Your task to perform on an android device: Open CNN.com Image 0: 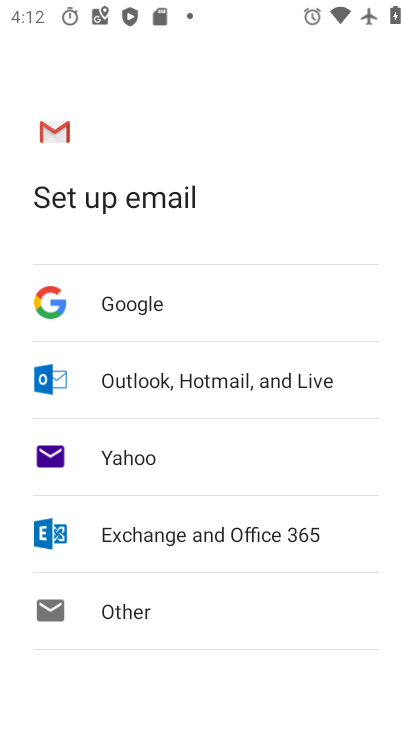
Step 0: press home button
Your task to perform on an android device: Open CNN.com Image 1: 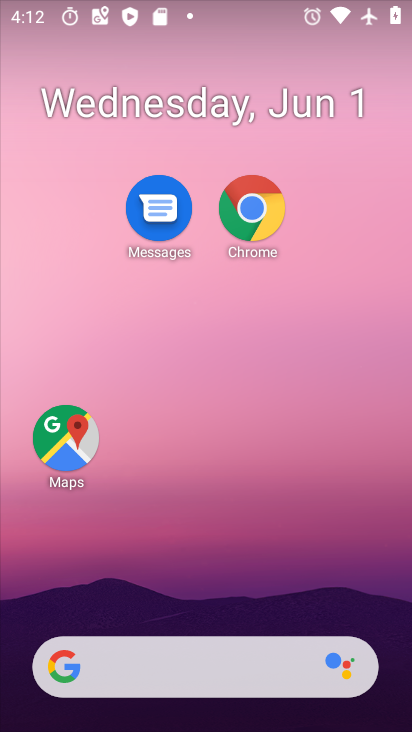
Step 1: click (236, 209)
Your task to perform on an android device: Open CNN.com Image 2: 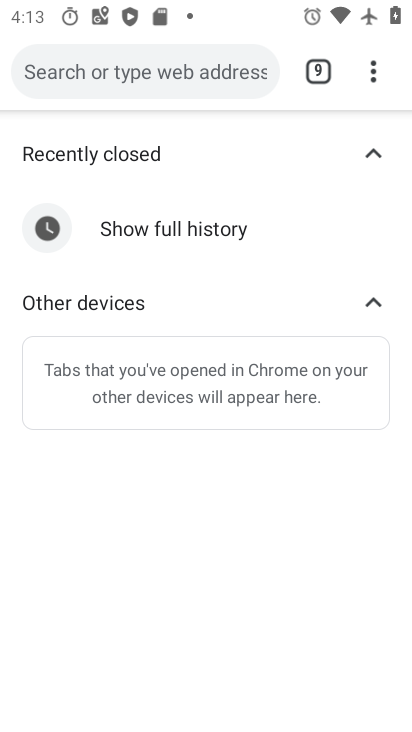
Step 2: click (316, 73)
Your task to perform on an android device: Open CNN.com Image 3: 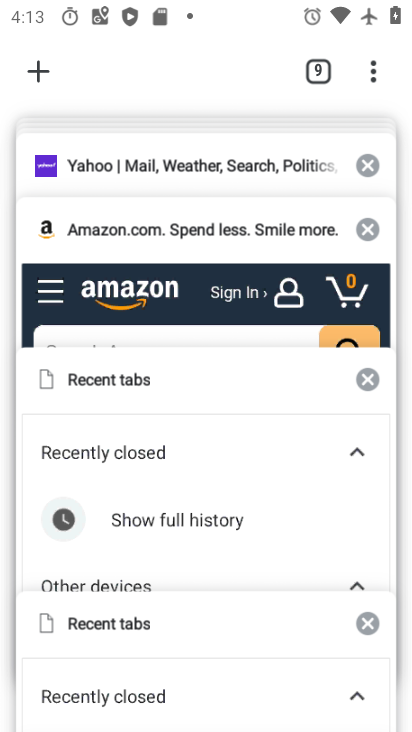
Step 3: drag from (127, 187) to (127, 531)
Your task to perform on an android device: Open CNN.com Image 4: 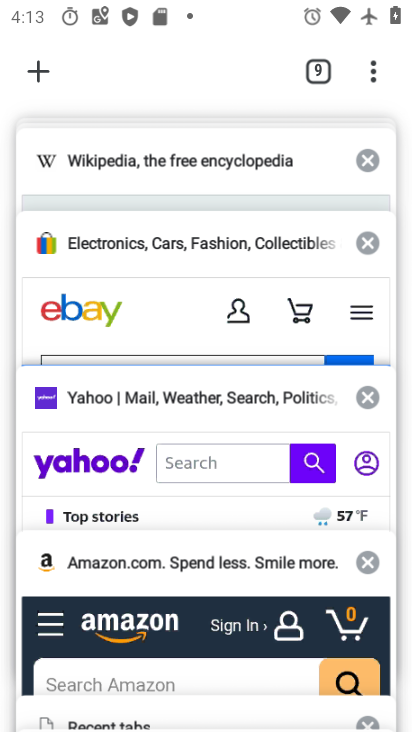
Step 4: drag from (147, 317) to (162, 539)
Your task to perform on an android device: Open CNN.com Image 5: 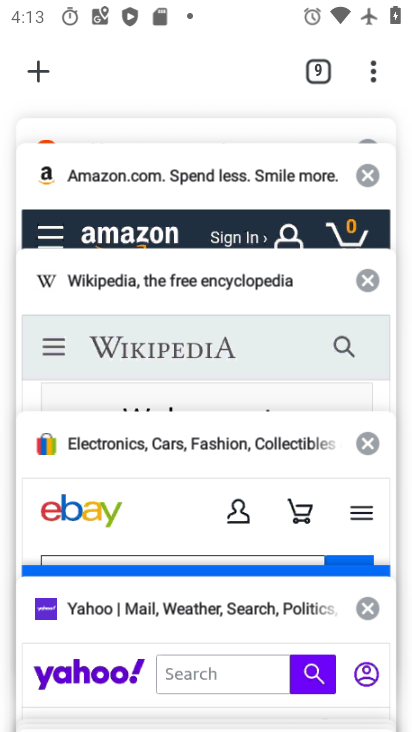
Step 5: drag from (141, 275) to (143, 502)
Your task to perform on an android device: Open CNN.com Image 6: 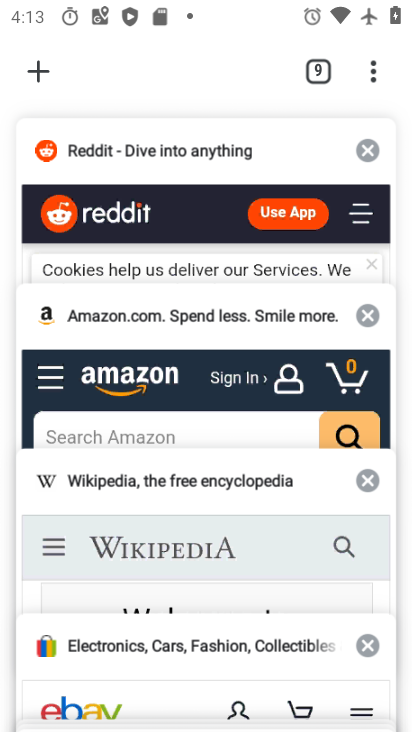
Step 6: drag from (143, 231) to (163, 438)
Your task to perform on an android device: Open CNN.com Image 7: 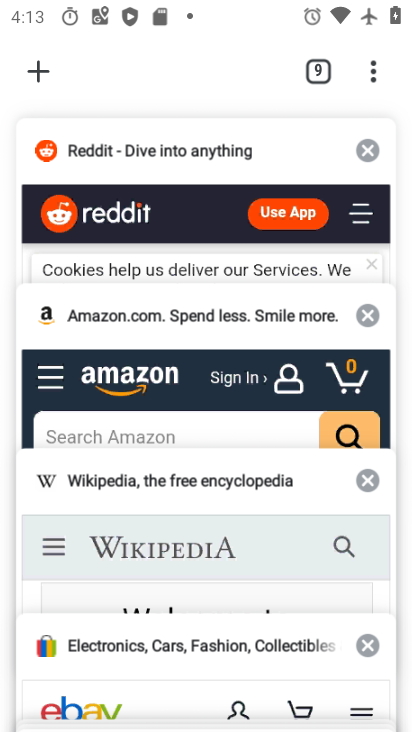
Step 7: drag from (139, 222) to (139, 413)
Your task to perform on an android device: Open CNN.com Image 8: 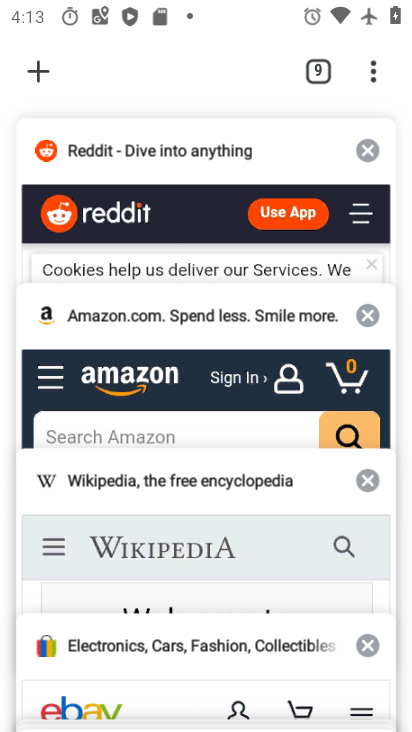
Step 8: drag from (115, 214) to (140, 411)
Your task to perform on an android device: Open CNN.com Image 9: 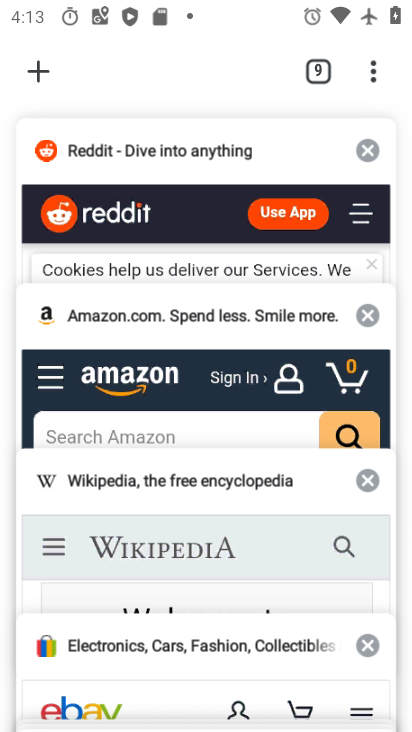
Step 9: click (38, 77)
Your task to perform on an android device: Open CNN.com Image 10: 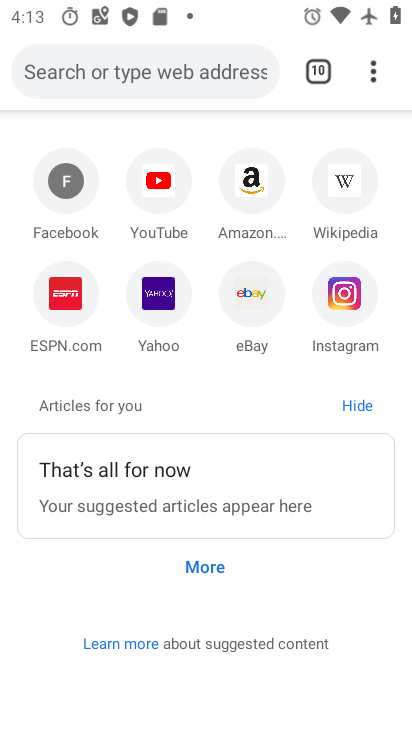
Step 10: click (128, 81)
Your task to perform on an android device: Open CNN.com Image 11: 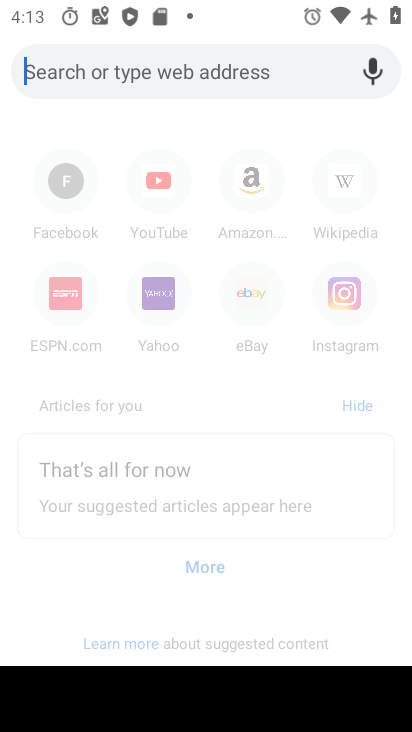
Step 11: type "CNN.com"
Your task to perform on an android device: Open CNN.com Image 12: 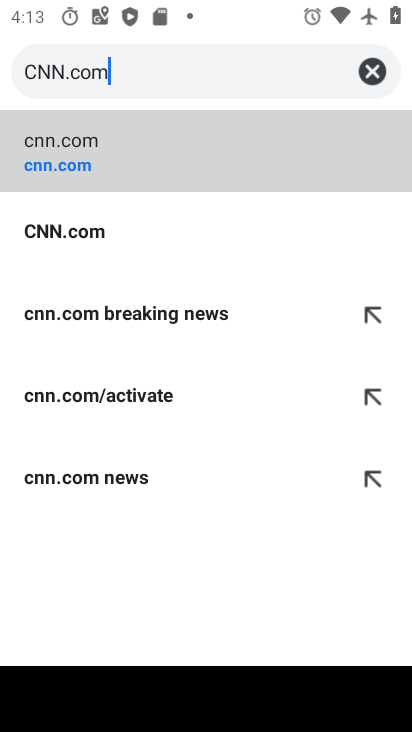
Step 12: click (103, 153)
Your task to perform on an android device: Open CNN.com Image 13: 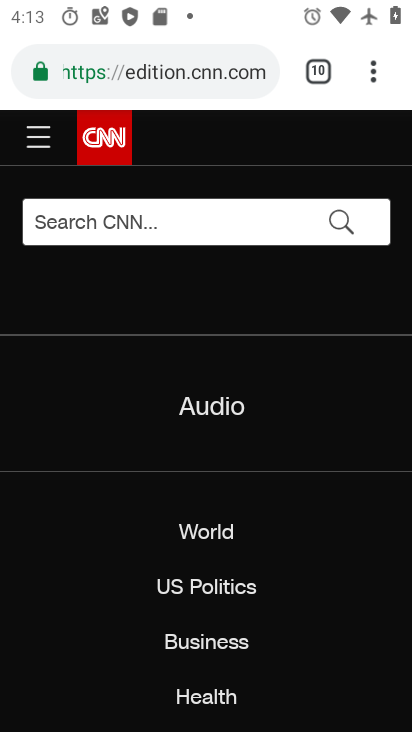
Step 13: task complete